Your task to perform on an android device: What's the weather today? Image 0: 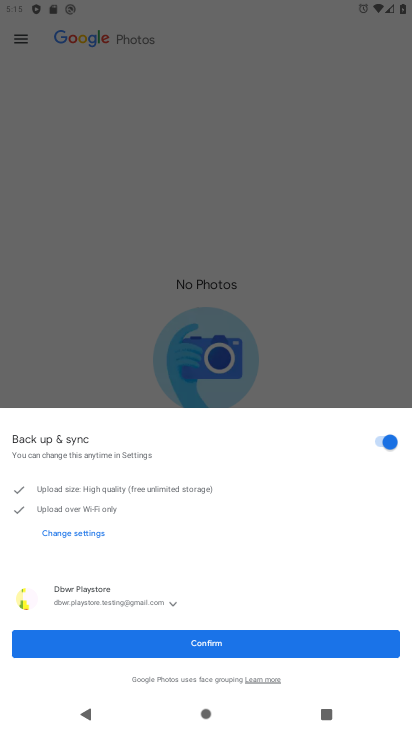
Step 0: press home button
Your task to perform on an android device: What's the weather today? Image 1: 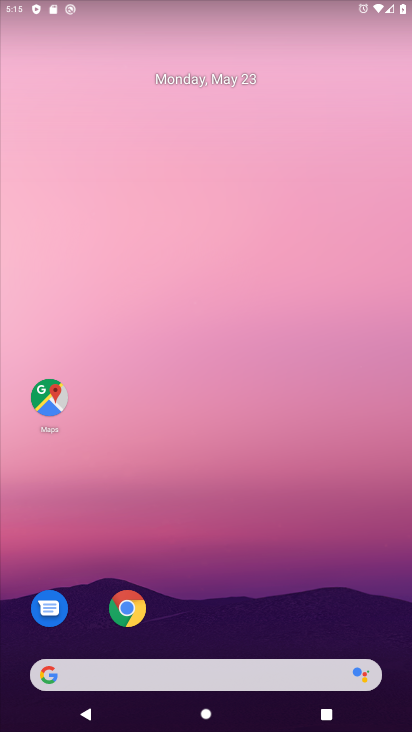
Step 1: click (195, 678)
Your task to perform on an android device: What's the weather today? Image 2: 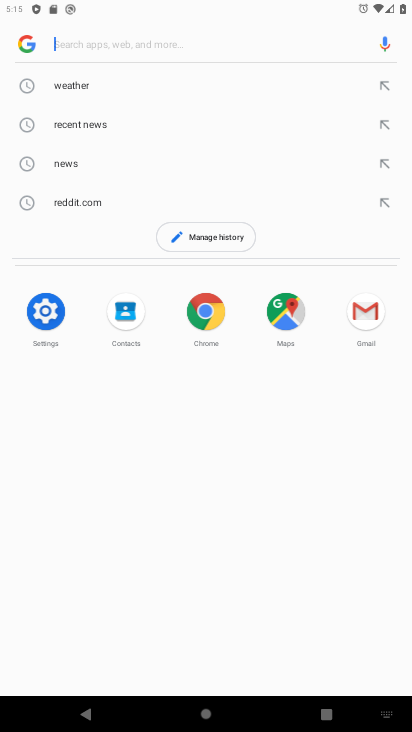
Step 2: click (78, 92)
Your task to perform on an android device: What's the weather today? Image 3: 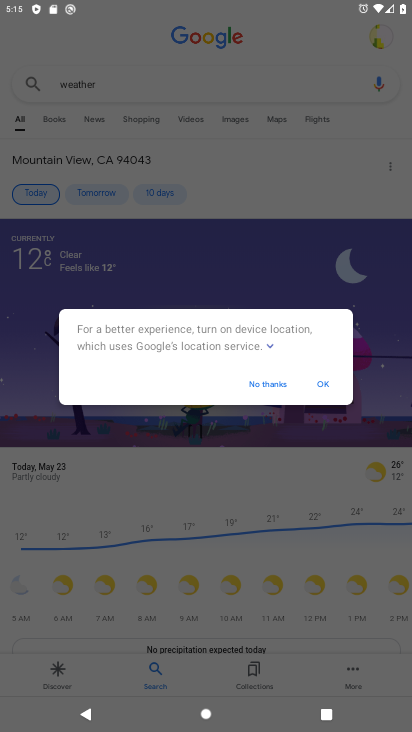
Step 3: click (329, 384)
Your task to perform on an android device: What's the weather today? Image 4: 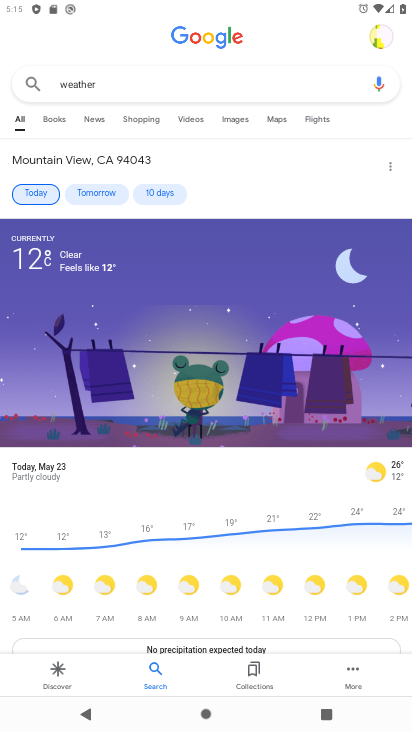
Step 4: task complete